Your task to perform on an android device: open wifi settings Image 0: 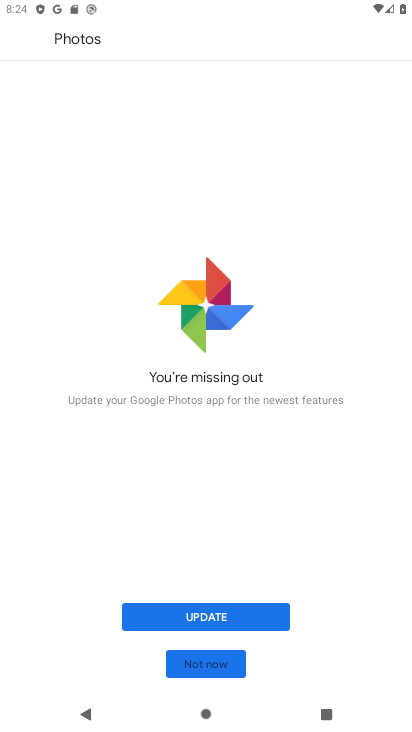
Step 0: press home button
Your task to perform on an android device: open wifi settings Image 1: 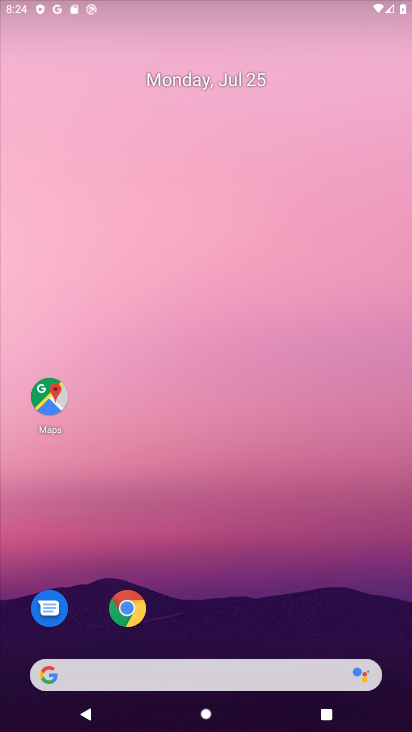
Step 1: drag from (172, 626) to (194, 113)
Your task to perform on an android device: open wifi settings Image 2: 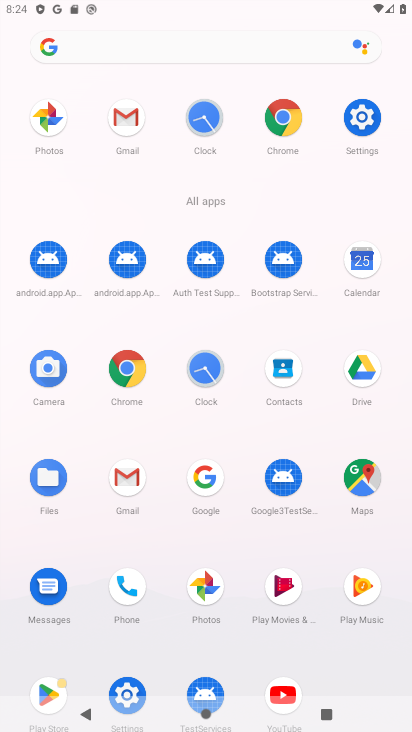
Step 2: click (361, 108)
Your task to perform on an android device: open wifi settings Image 3: 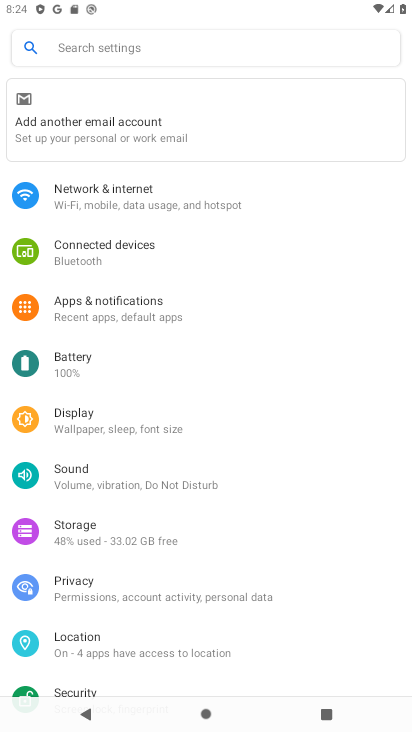
Step 3: click (110, 190)
Your task to perform on an android device: open wifi settings Image 4: 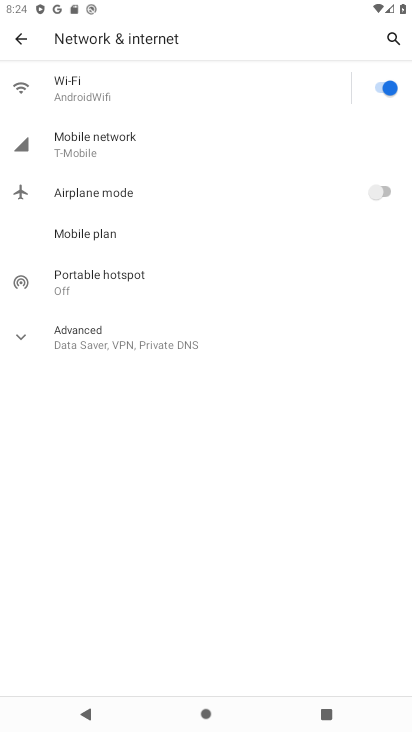
Step 4: click (127, 75)
Your task to perform on an android device: open wifi settings Image 5: 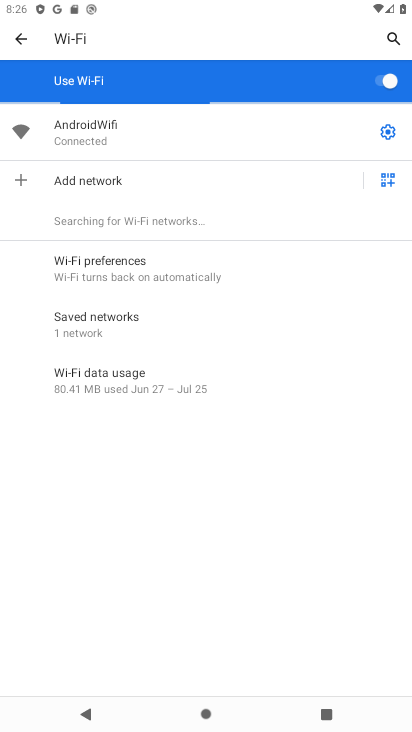
Step 5: task complete